Your task to perform on an android device: install app "Google Play Games" Image 0: 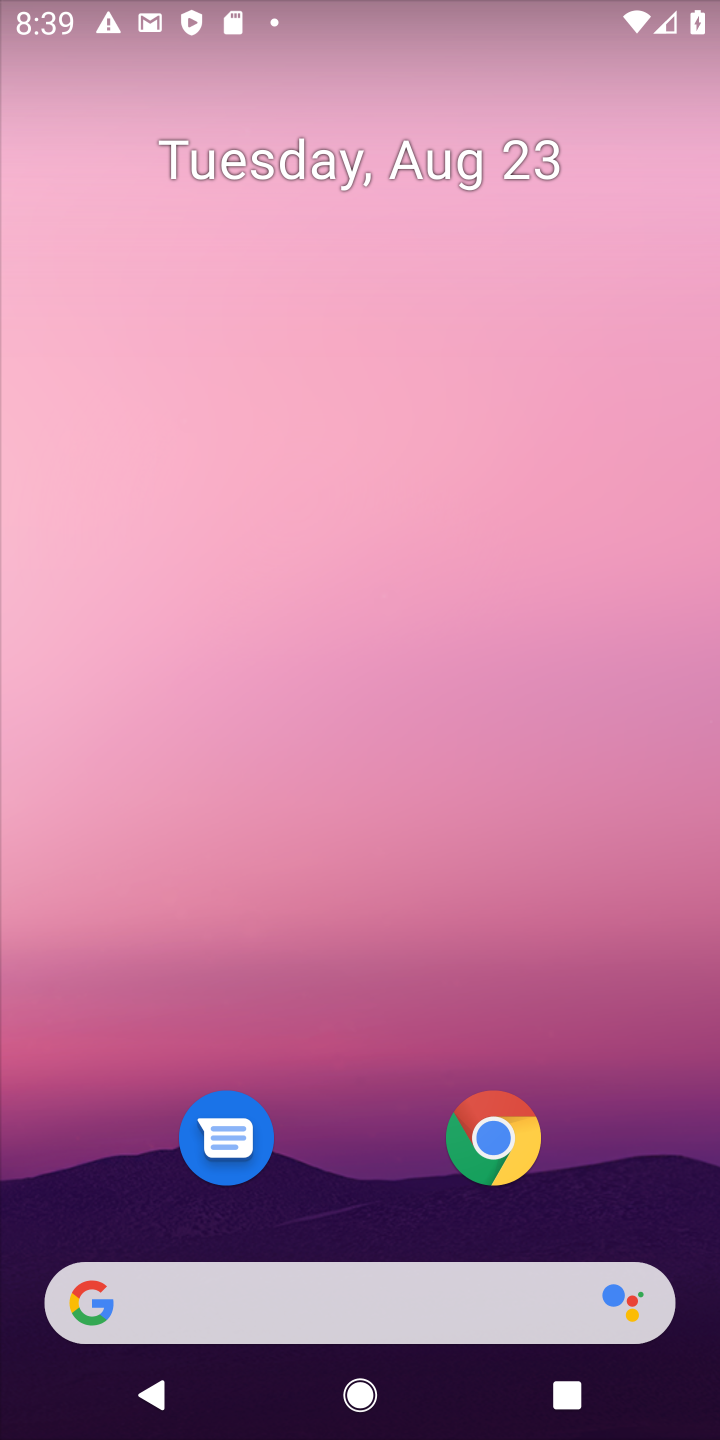
Step 0: press home button
Your task to perform on an android device: install app "Google Play Games" Image 1: 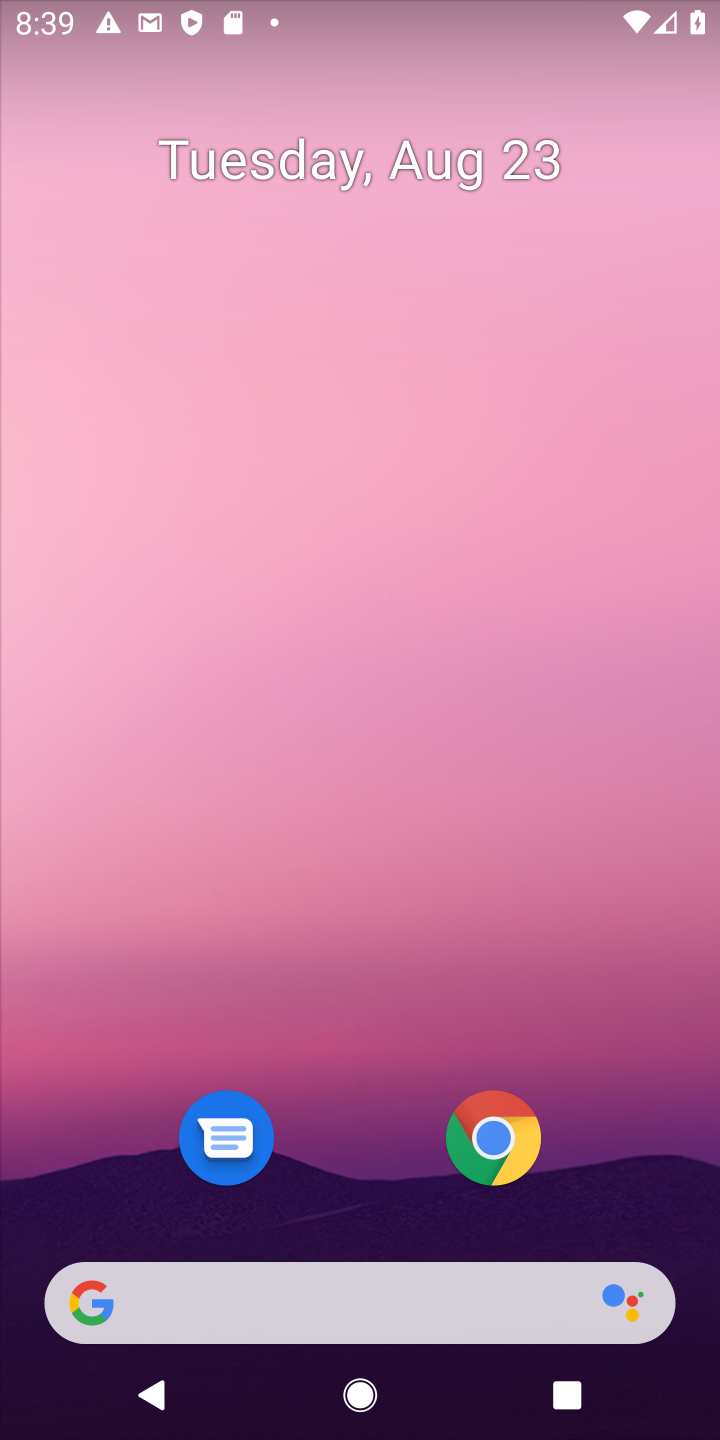
Step 1: drag from (600, 1183) to (617, 215)
Your task to perform on an android device: install app "Google Play Games" Image 2: 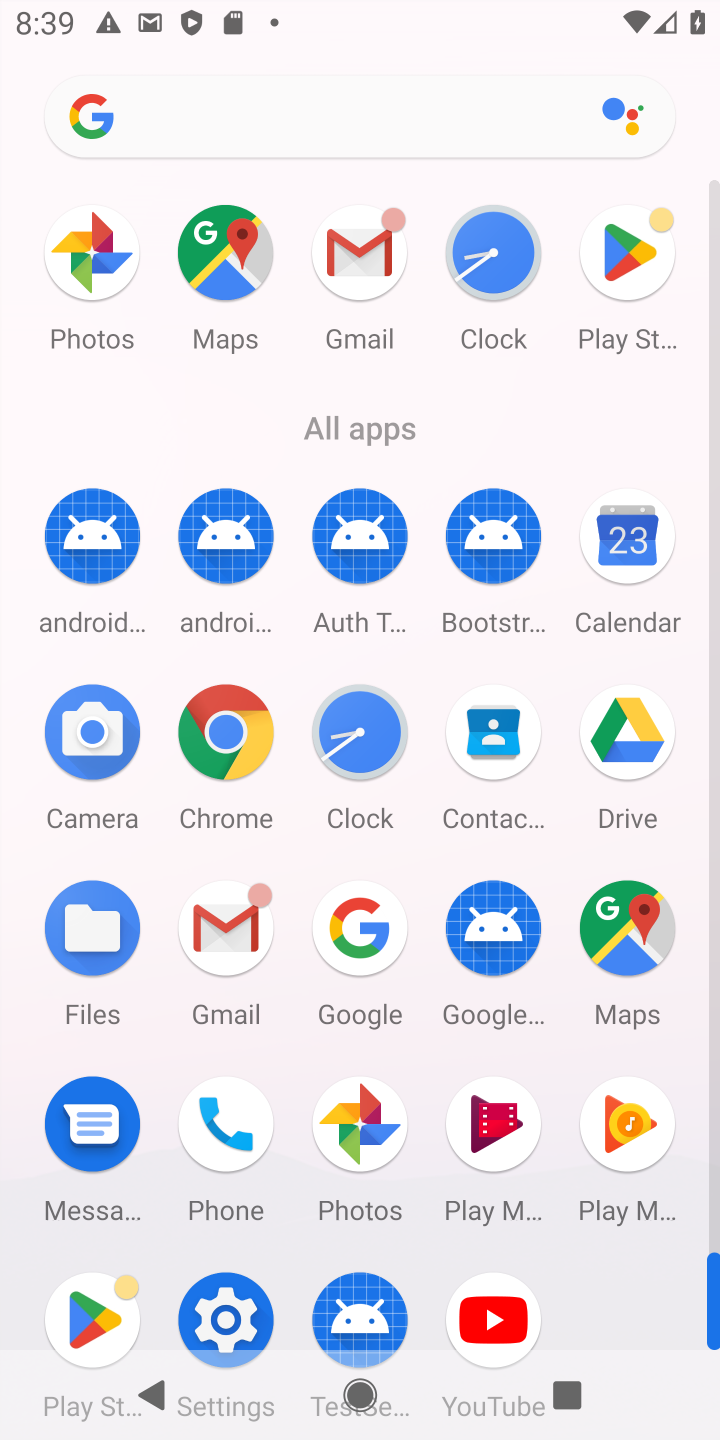
Step 2: click (631, 255)
Your task to perform on an android device: install app "Google Play Games" Image 3: 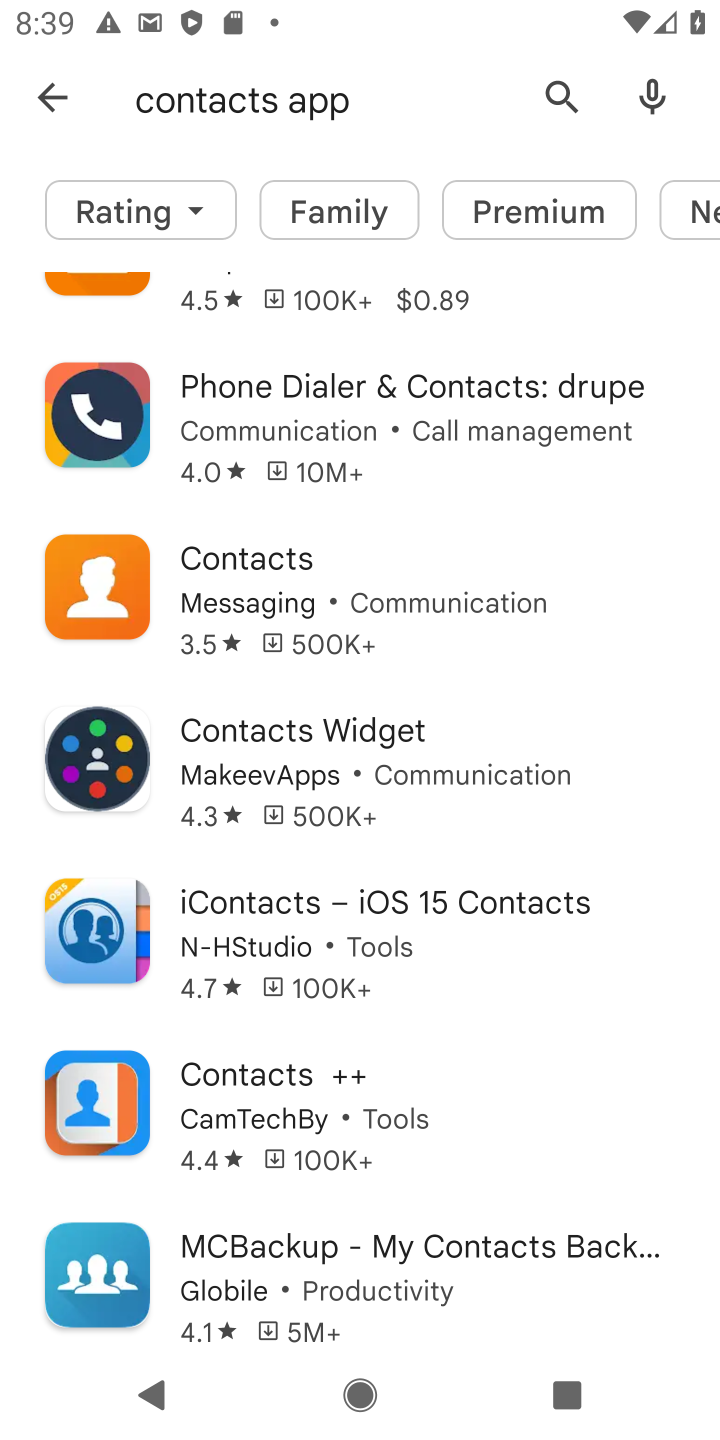
Step 3: press back button
Your task to perform on an android device: install app "Google Play Games" Image 4: 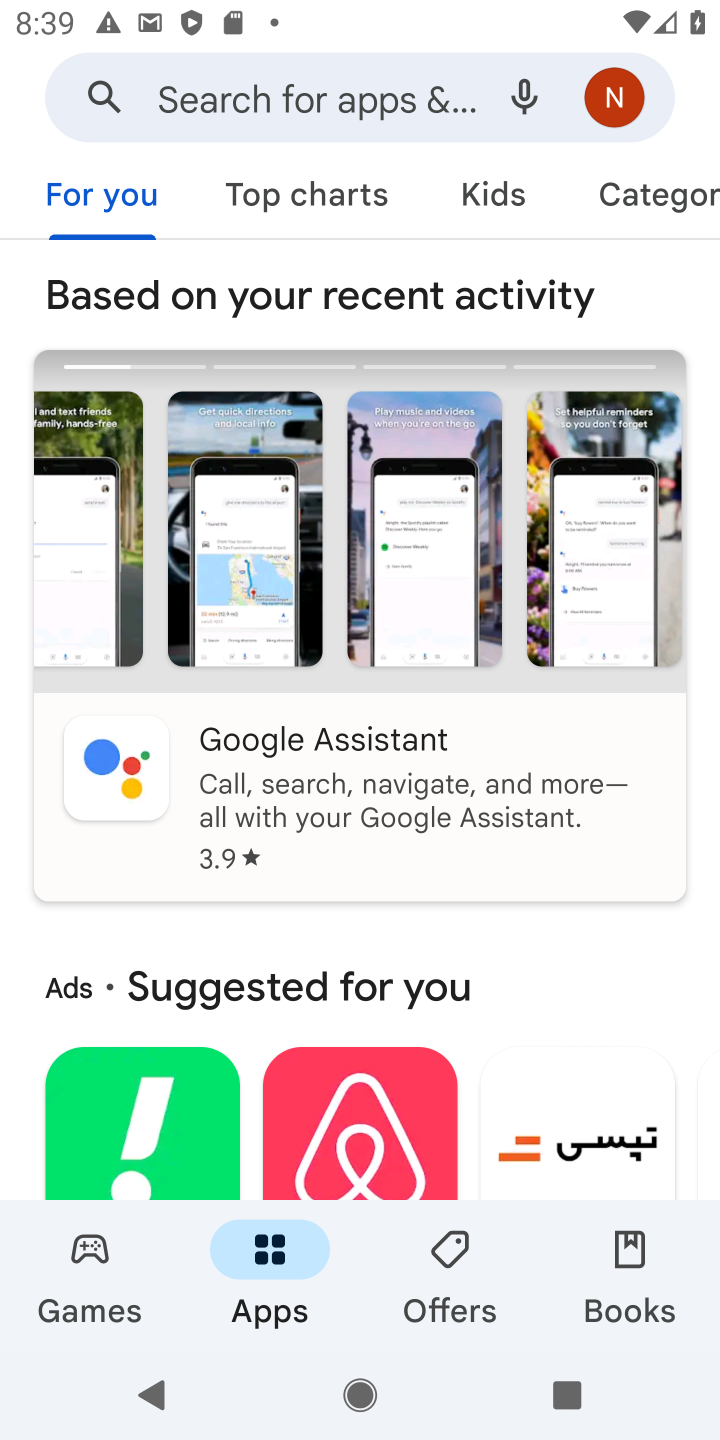
Step 4: click (315, 99)
Your task to perform on an android device: install app "Google Play Games" Image 5: 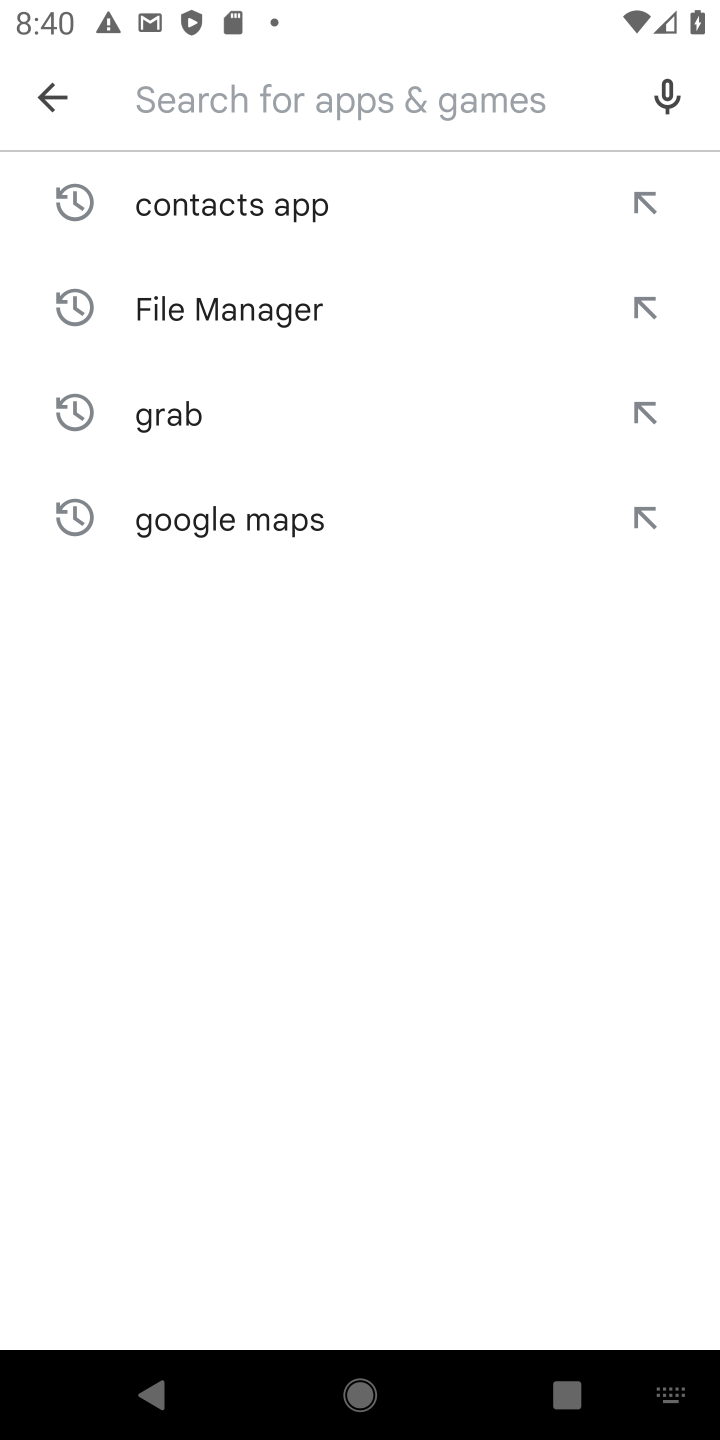
Step 5: type "Google Play Games"
Your task to perform on an android device: install app "Google Play Games" Image 6: 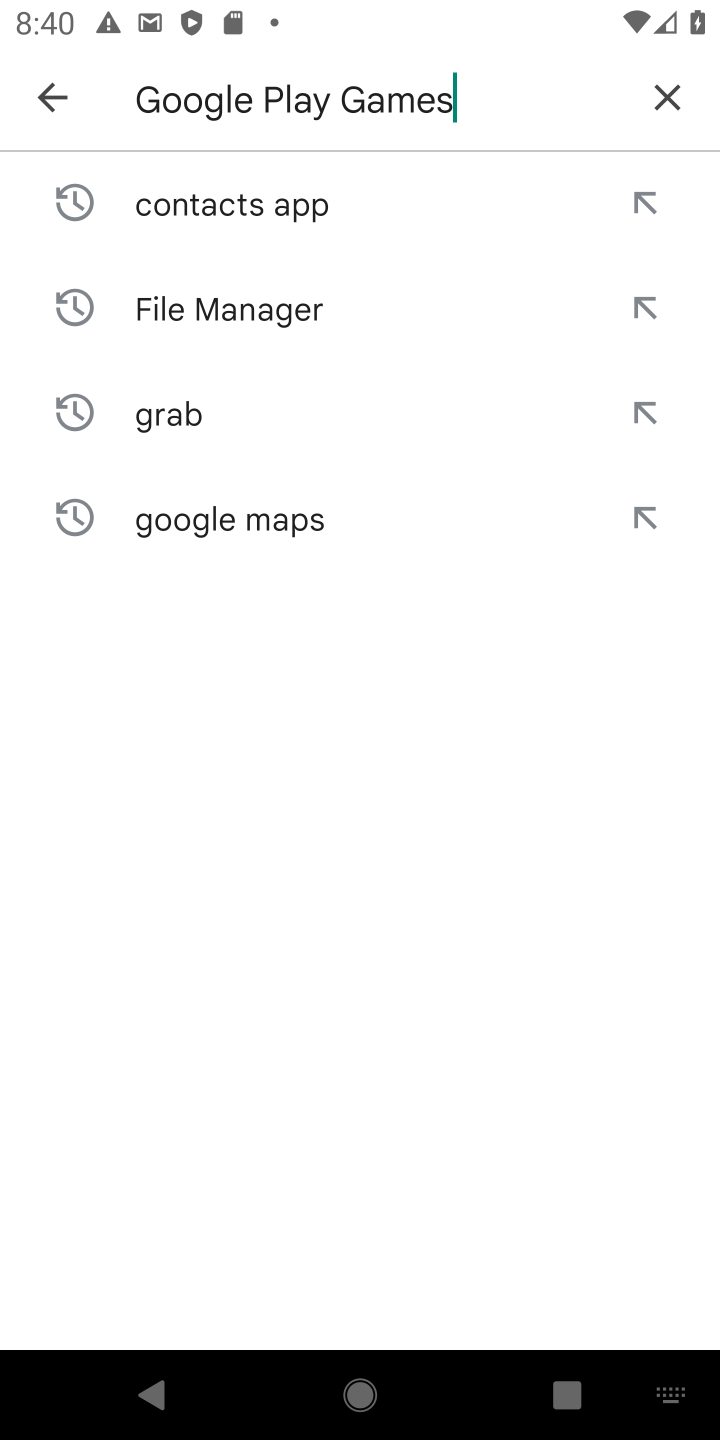
Step 6: press enter
Your task to perform on an android device: install app "Google Play Games" Image 7: 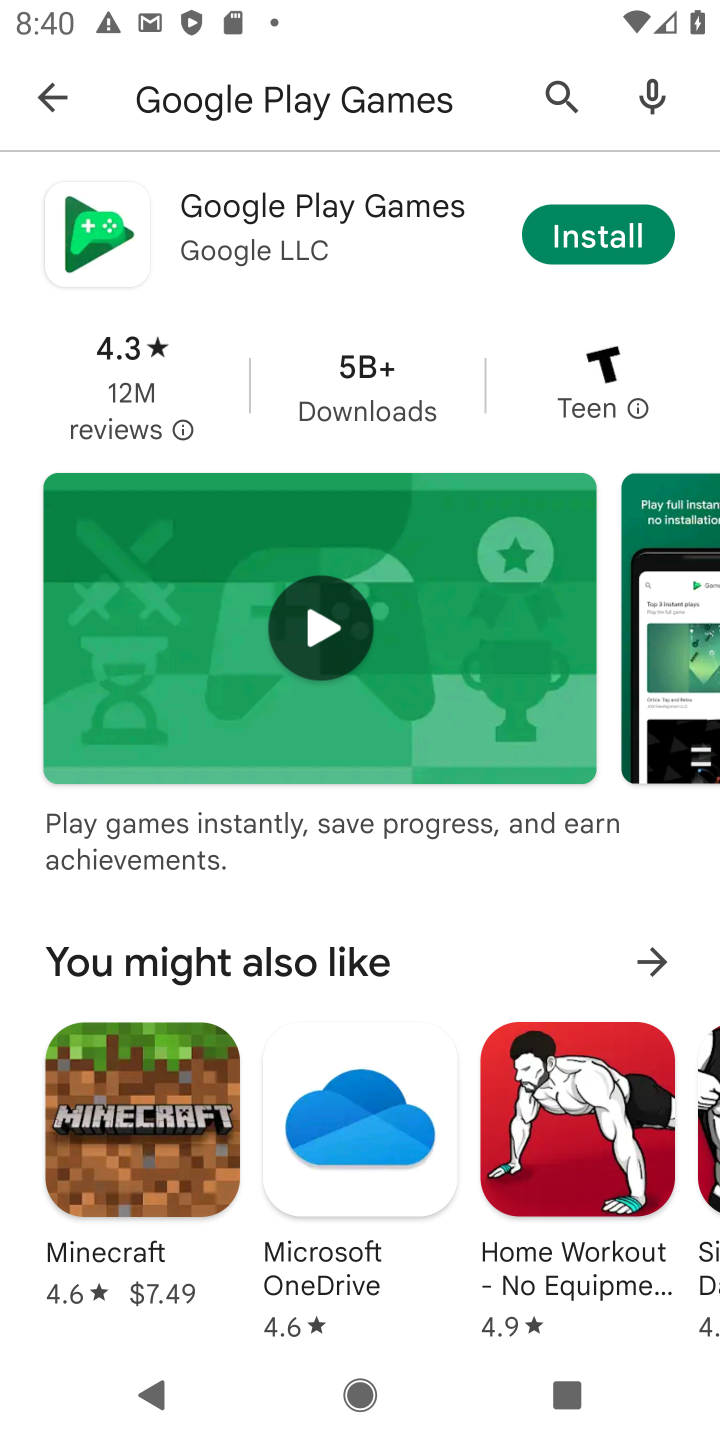
Step 7: click (641, 242)
Your task to perform on an android device: install app "Google Play Games" Image 8: 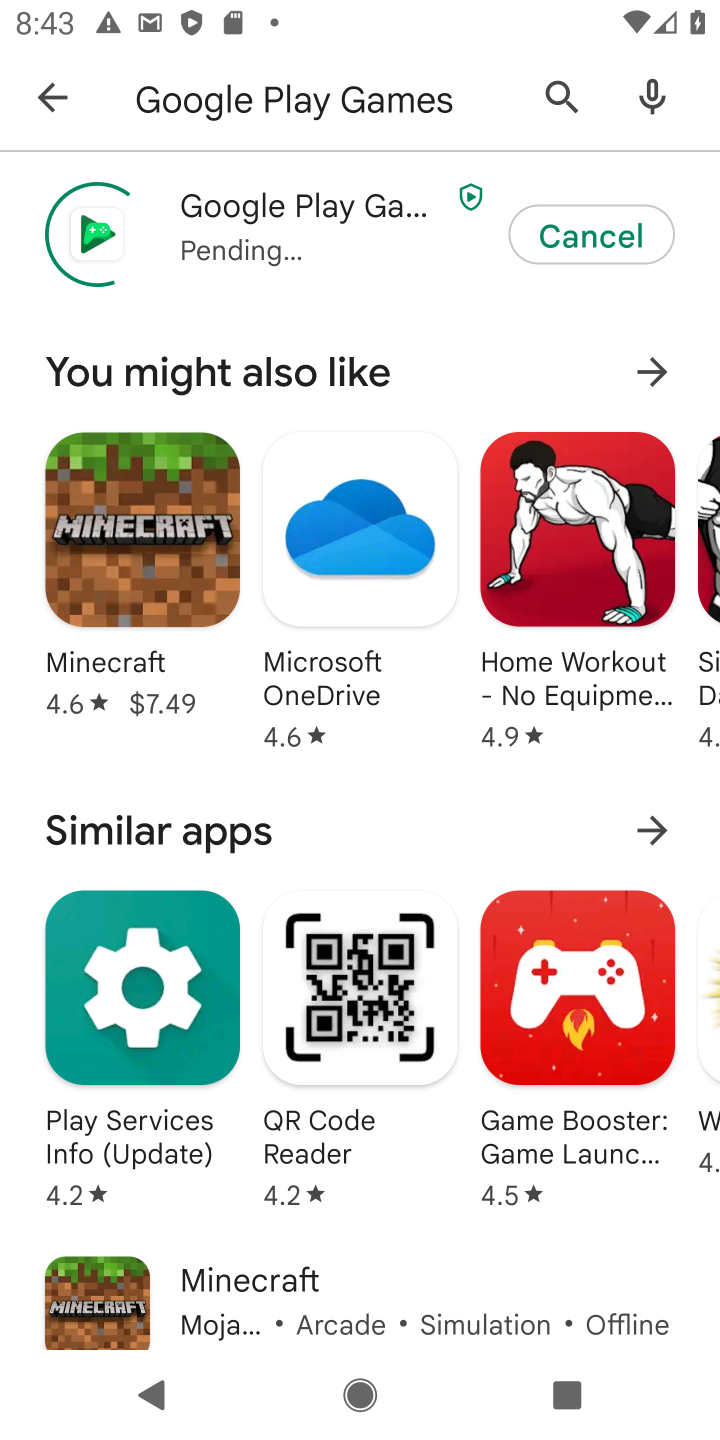
Step 8: task complete